Your task to perform on an android device: Go to Amazon Image 0: 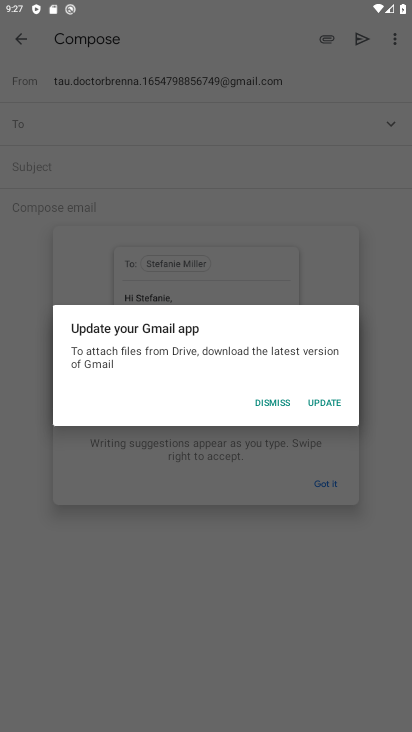
Step 0: press home button
Your task to perform on an android device: Go to Amazon Image 1: 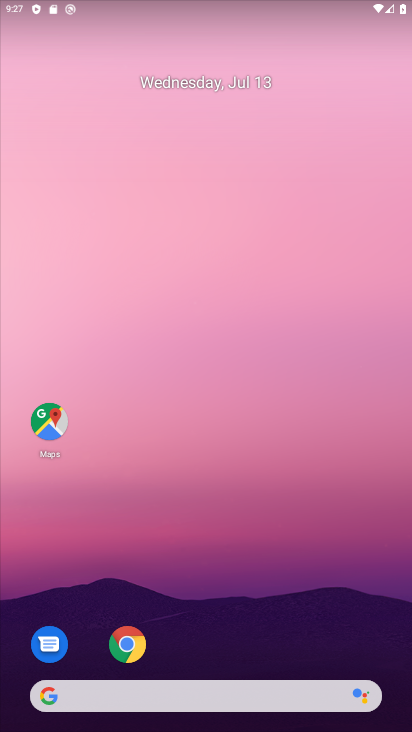
Step 1: drag from (173, 669) to (277, 164)
Your task to perform on an android device: Go to Amazon Image 2: 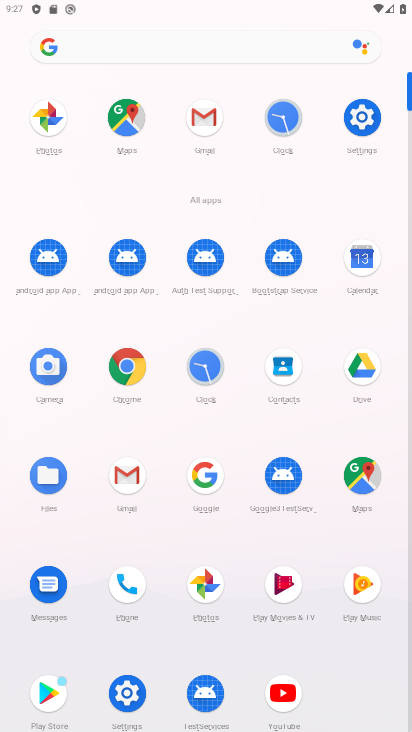
Step 2: click (129, 379)
Your task to perform on an android device: Go to Amazon Image 3: 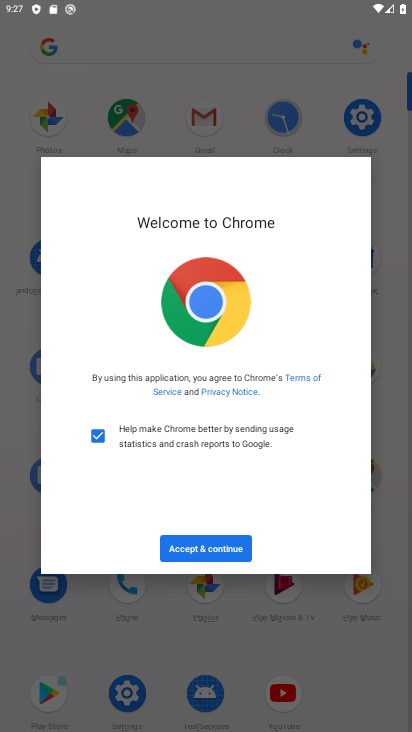
Step 3: click (237, 558)
Your task to perform on an android device: Go to Amazon Image 4: 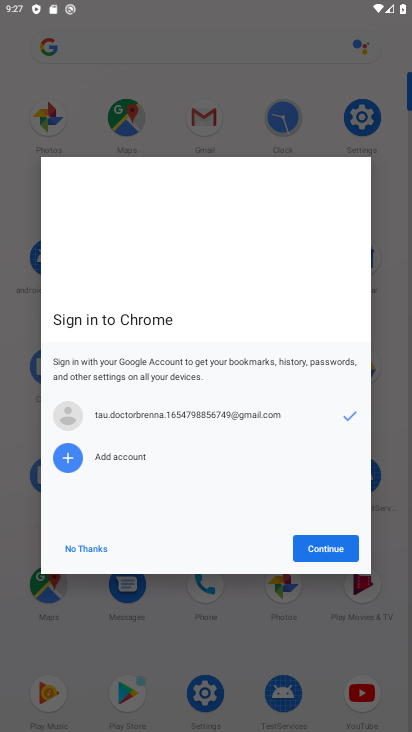
Step 4: click (352, 539)
Your task to perform on an android device: Go to Amazon Image 5: 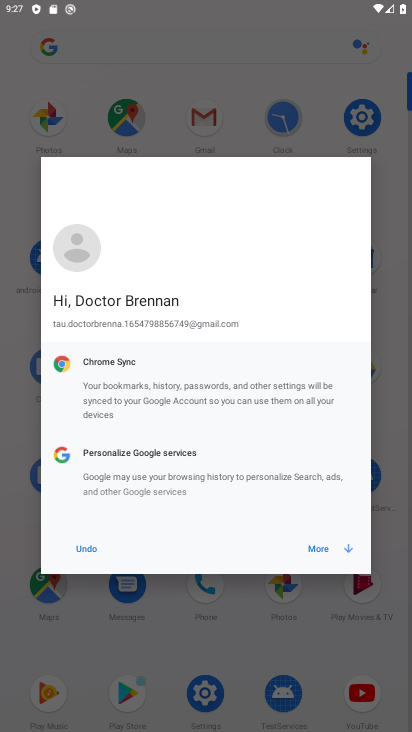
Step 5: click (340, 544)
Your task to perform on an android device: Go to Amazon Image 6: 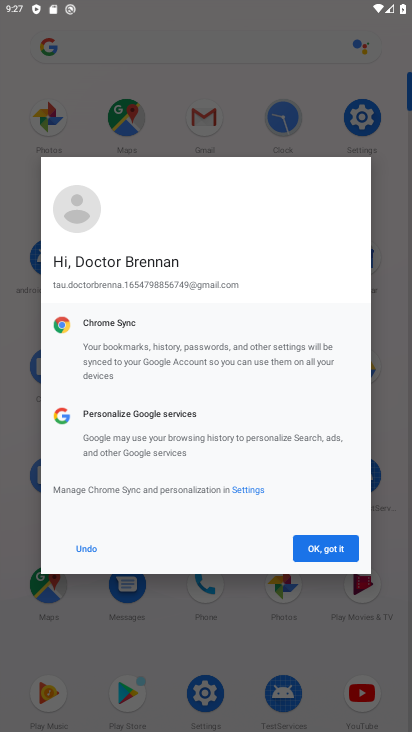
Step 6: click (338, 544)
Your task to perform on an android device: Go to Amazon Image 7: 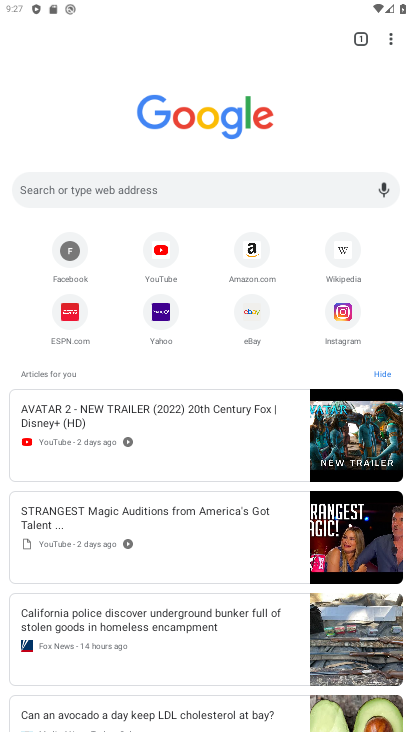
Step 7: click (252, 256)
Your task to perform on an android device: Go to Amazon Image 8: 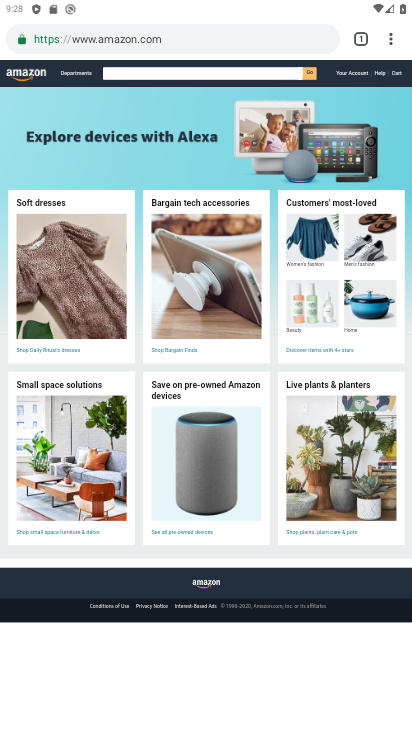
Step 8: task complete